Your task to perform on an android device: uninstall "Cash App" Image 0: 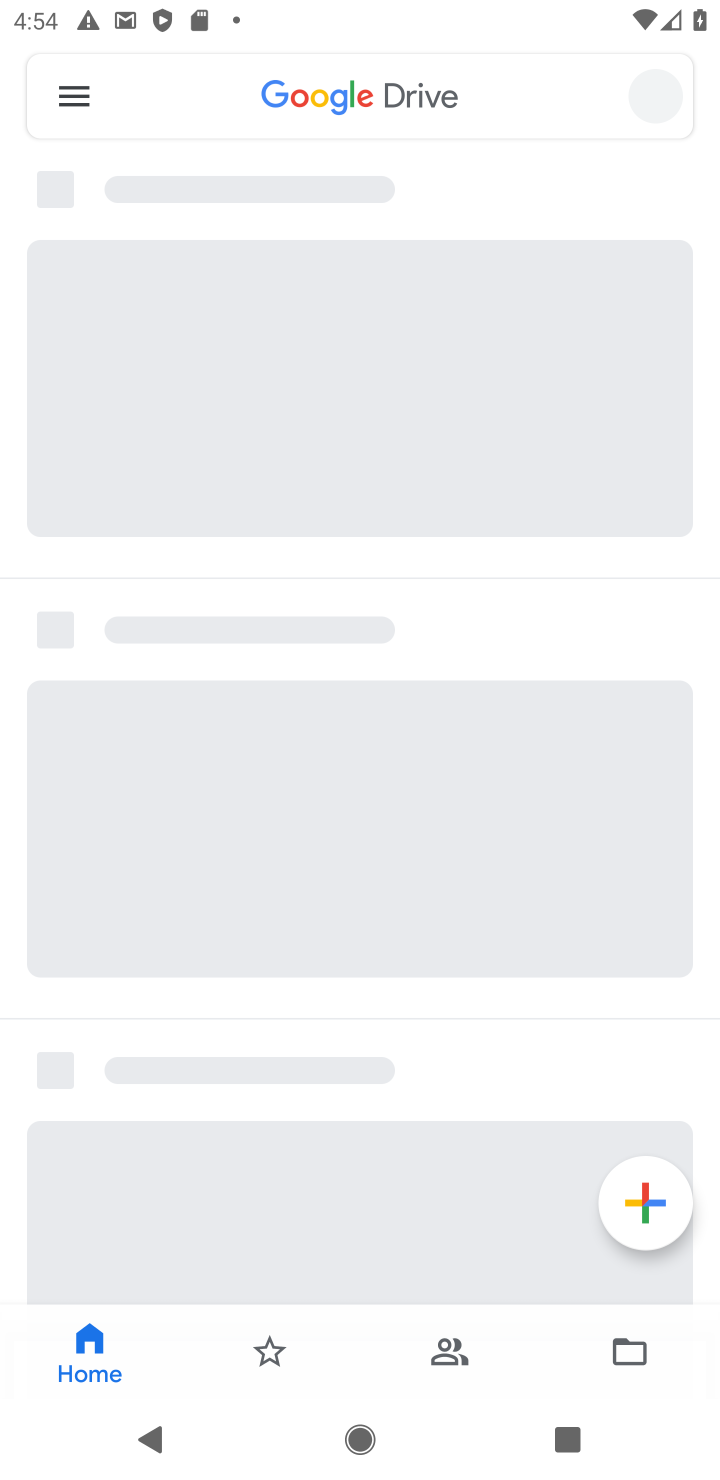
Step 0: press home button
Your task to perform on an android device: uninstall "Cash App" Image 1: 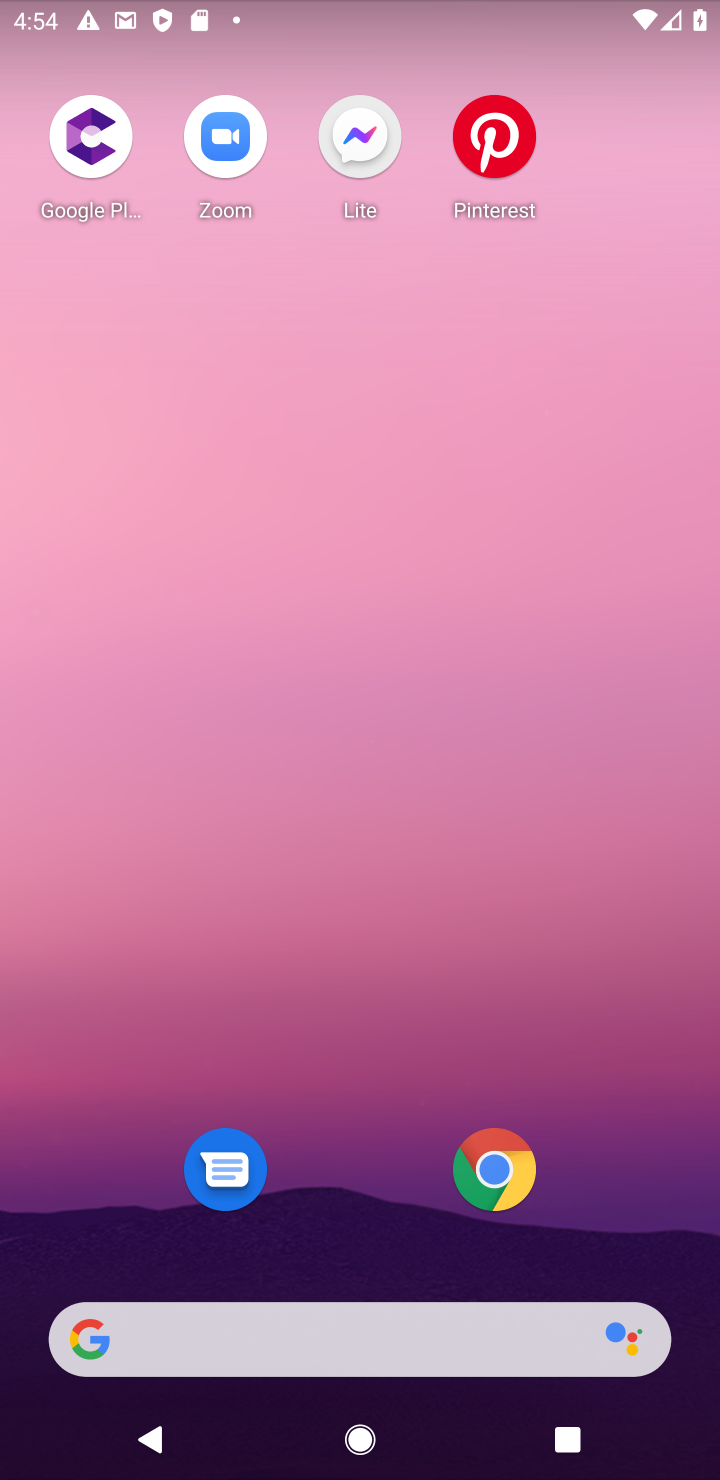
Step 1: drag from (660, 1039) to (476, 386)
Your task to perform on an android device: uninstall "Cash App" Image 2: 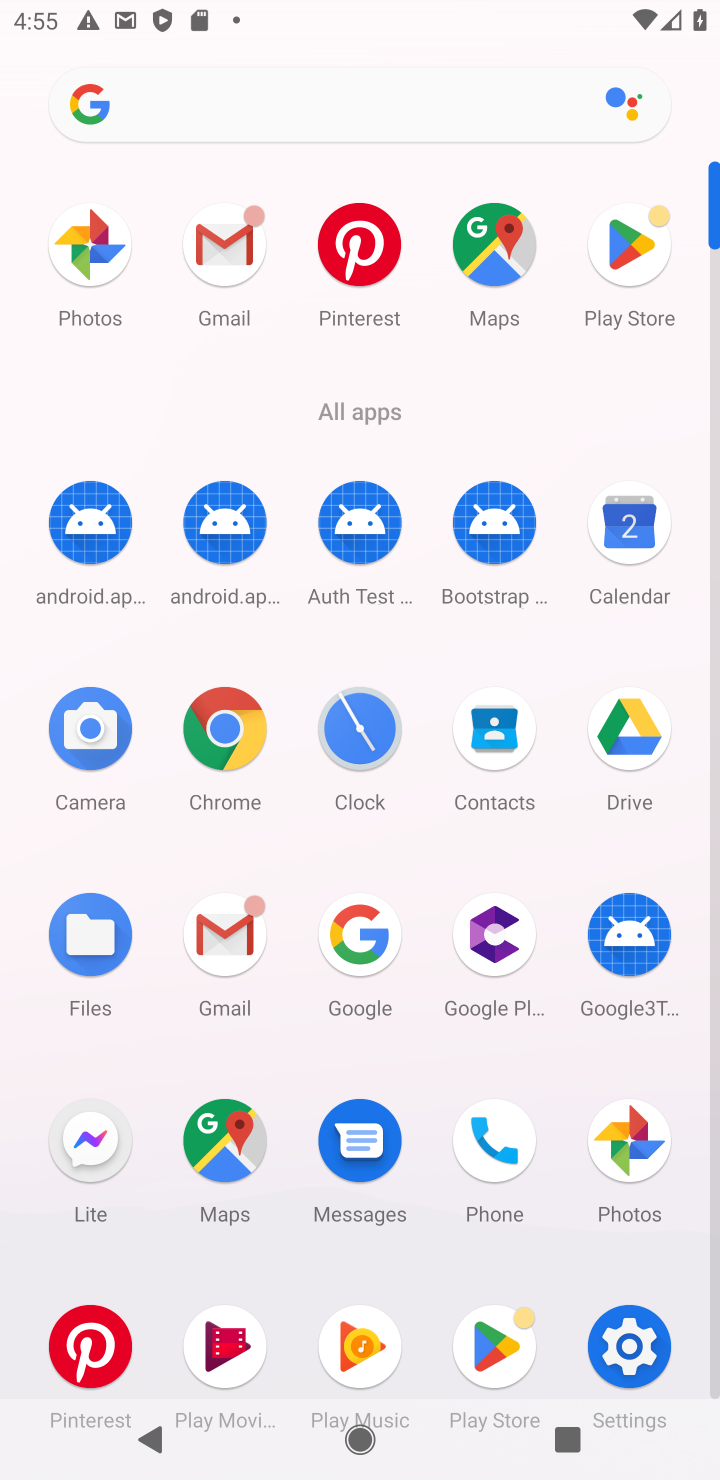
Step 2: click (491, 1346)
Your task to perform on an android device: uninstall "Cash App" Image 3: 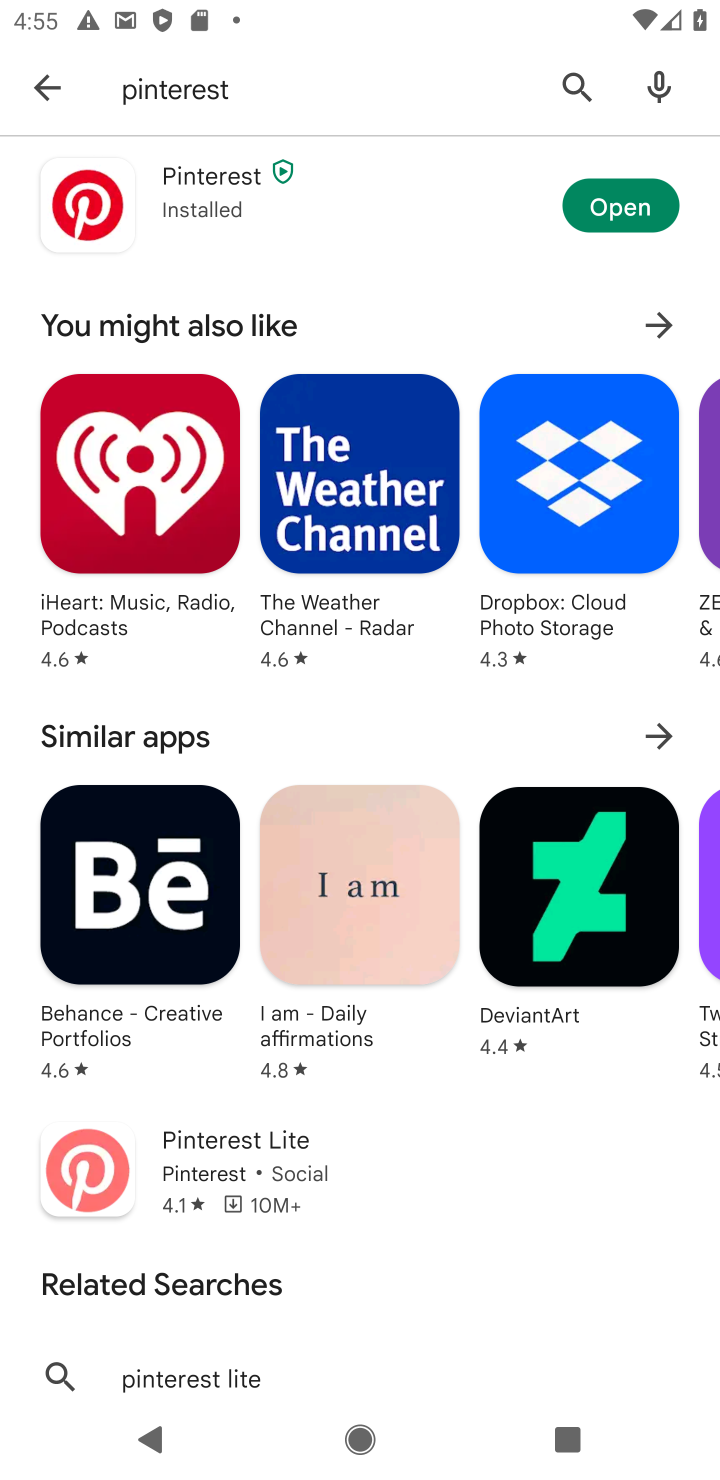
Step 3: click (583, 90)
Your task to perform on an android device: uninstall "Cash App" Image 4: 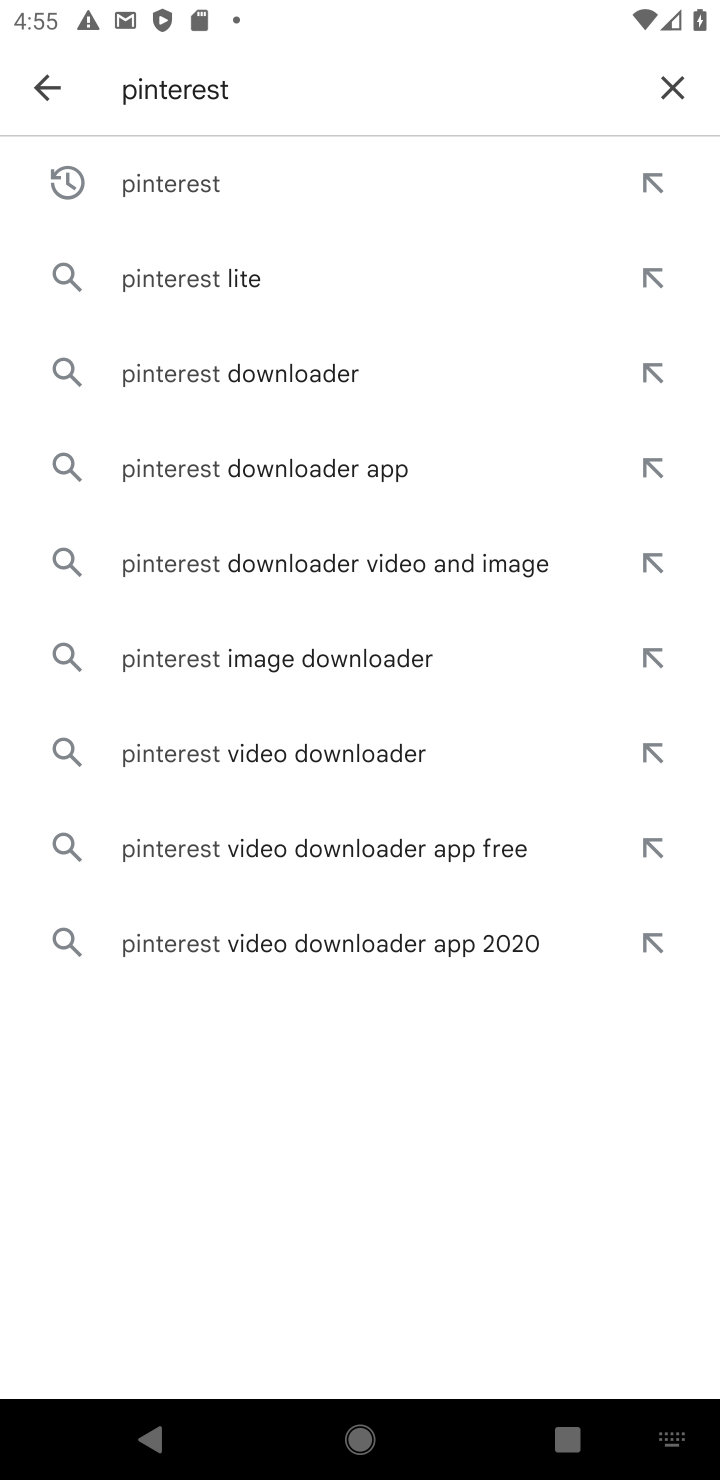
Step 4: click (672, 86)
Your task to perform on an android device: uninstall "Cash App" Image 5: 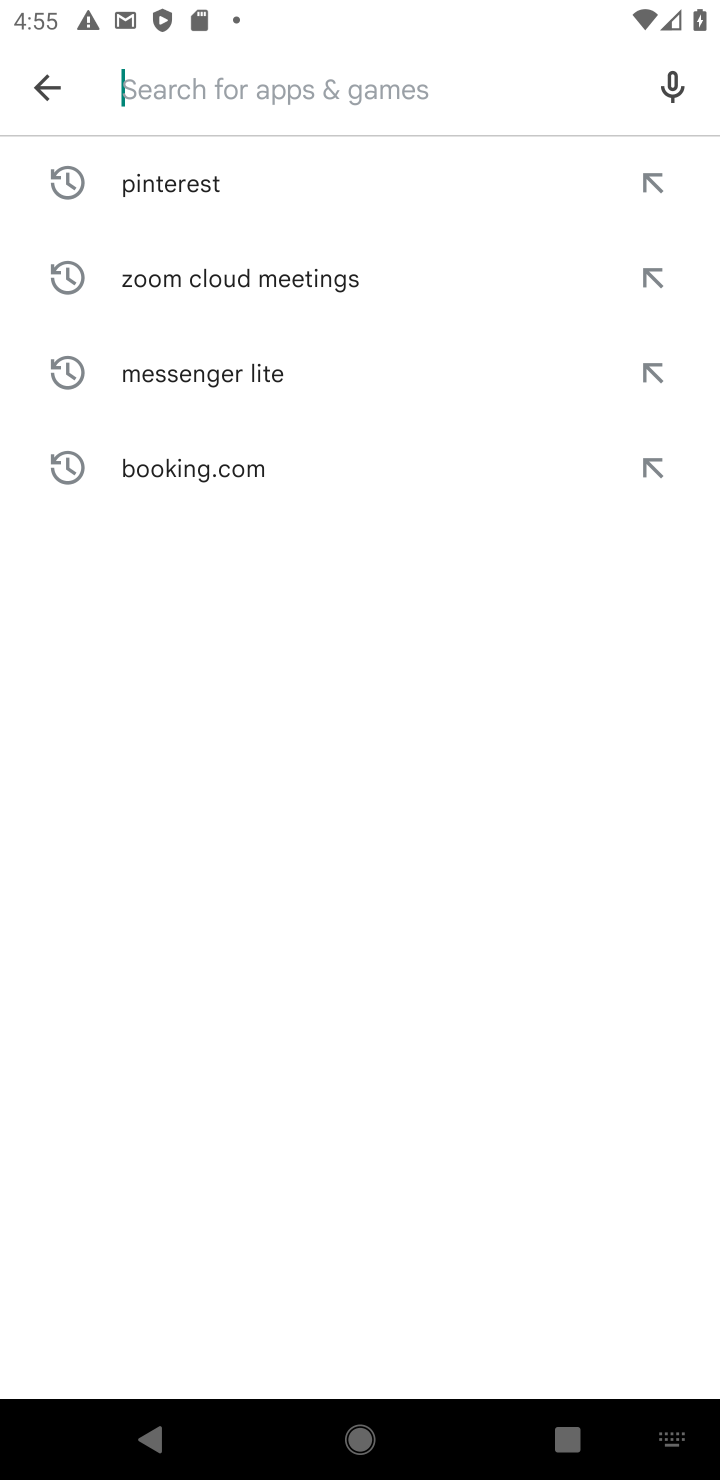
Step 5: type "cash app"
Your task to perform on an android device: uninstall "Cash App" Image 6: 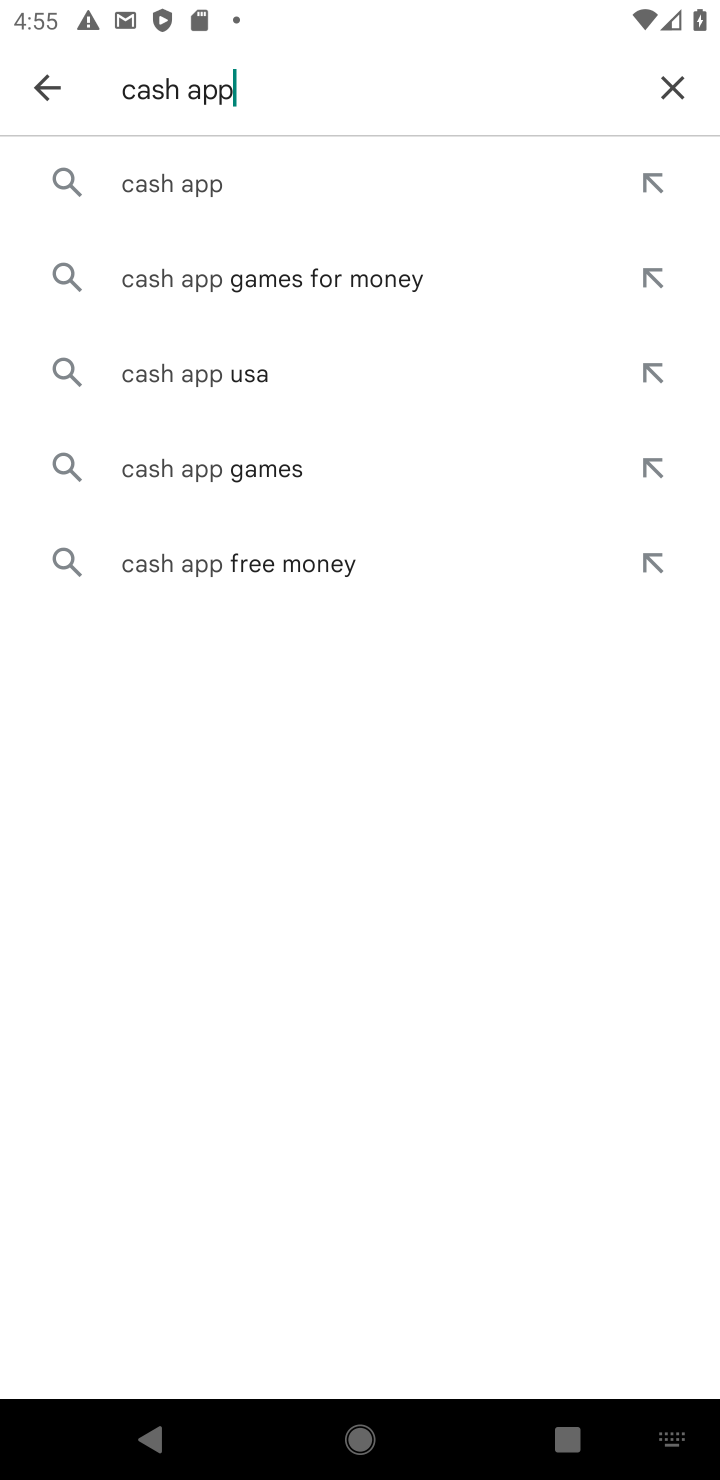
Step 6: click (256, 173)
Your task to perform on an android device: uninstall "Cash App" Image 7: 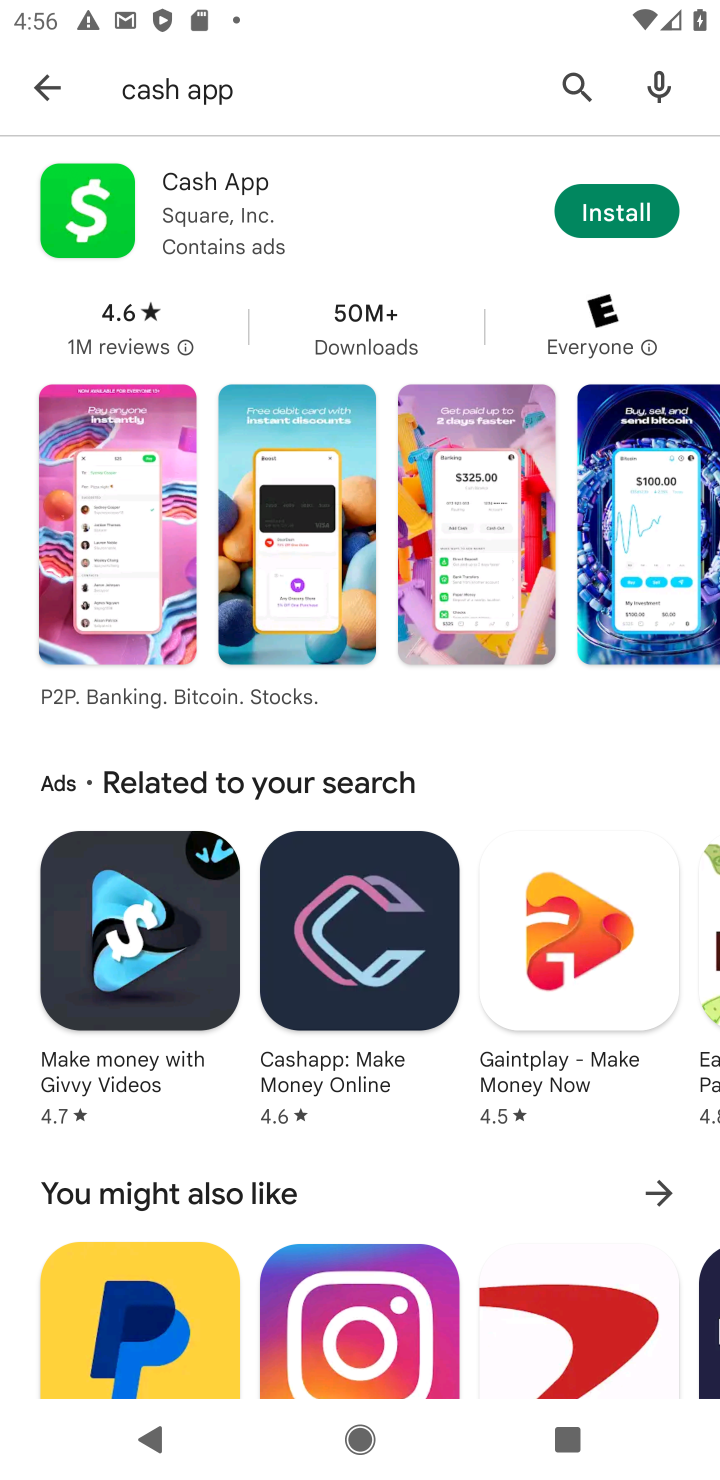
Step 7: task complete